Your task to perform on an android device: turn vacation reply on in the gmail app Image 0: 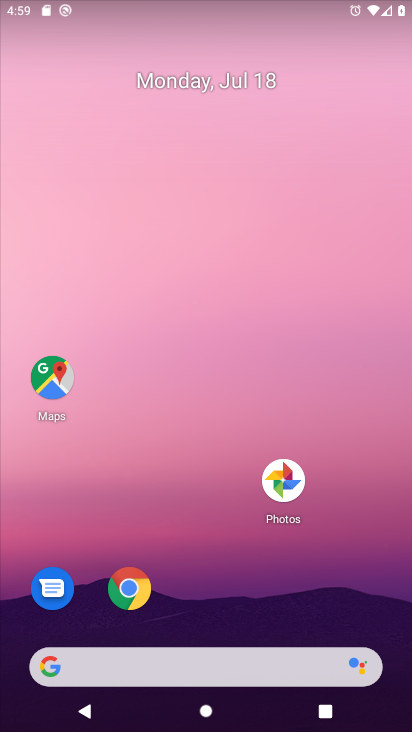
Step 0: drag from (266, 633) to (195, 145)
Your task to perform on an android device: turn vacation reply on in the gmail app Image 1: 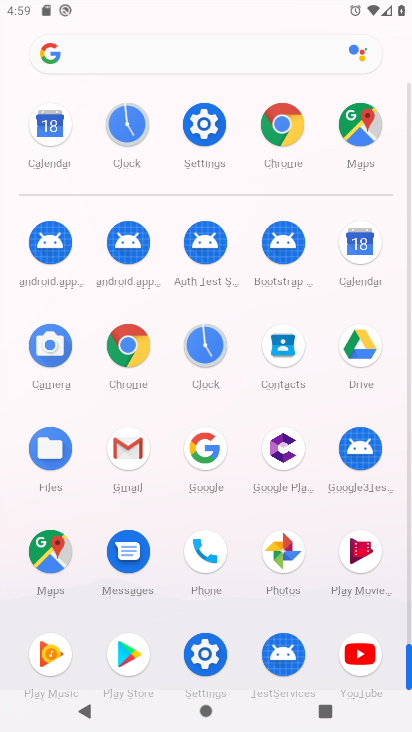
Step 1: click (133, 445)
Your task to perform on an android device: turn vacation reply on in the gmail app Image 2: 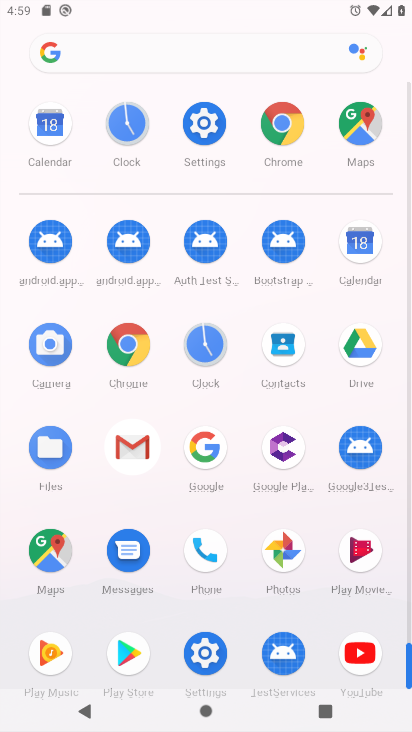
Step 2: click (130, 443)
Your task to perform on an android device: turn vacation reply on in the gmail app Image 3: 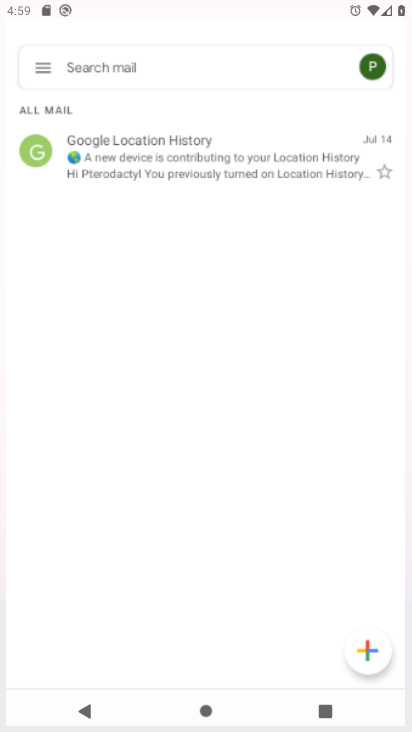
Step 3: click (130, 443)
Your task to perform on an android device: turn vacation reply on in the gmail app Image 4: 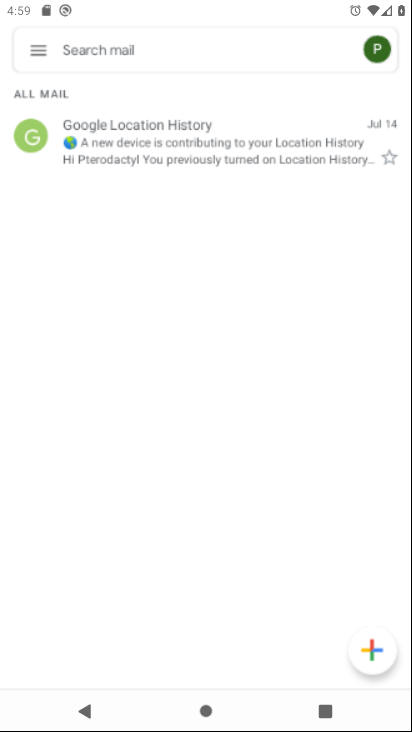
Step 4: click (130, 443)
Your task to perform on an android device: turn vacation reply on in the gmail app Image 5: 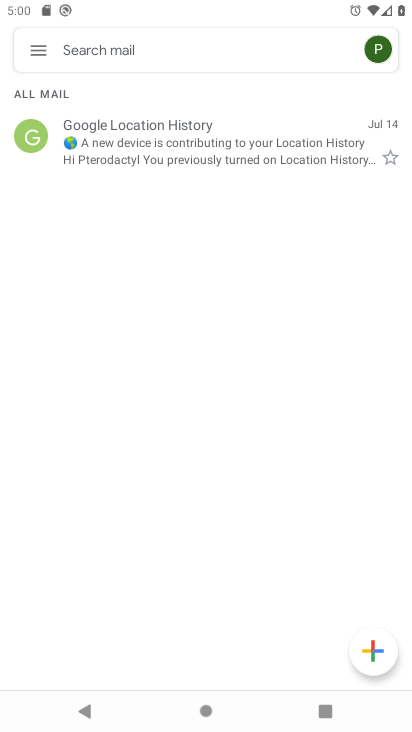
Step 5: drag from (34, 53) to (46, 113)
Your task to perform on an android device: turn vacation reply on in the gmail app Image 6: 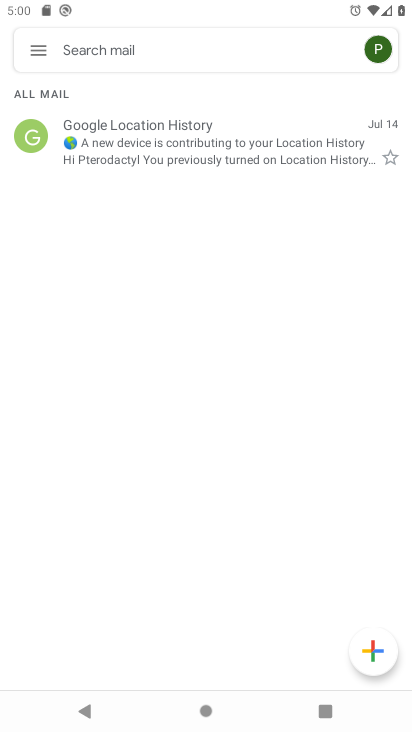
Step 6: click (30, 50)
Your task to perform on an android device: turn vacation reply on in the gmail app Image 7: 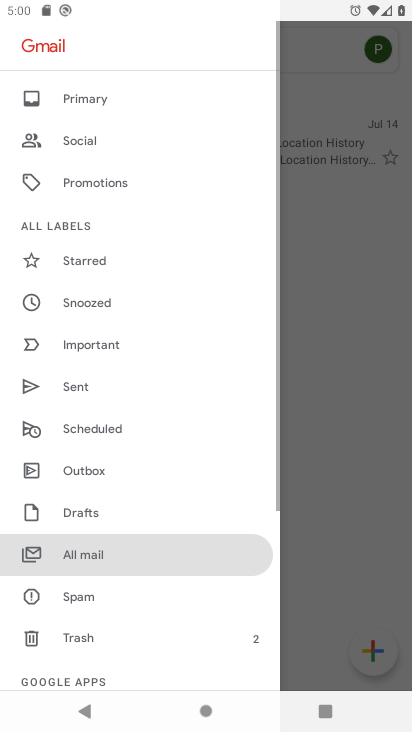
Step 7: click (37, 54)
Your task to perform on an android device: turn vacation reply on in the gmail app Image 8: 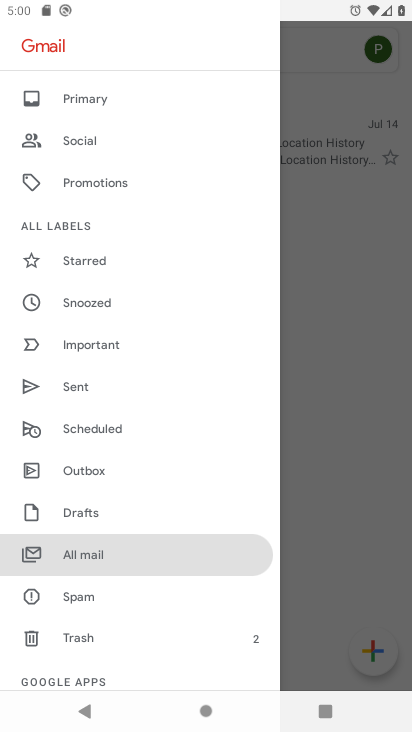
Step 8: drag from (81, 637) to (69, 260)
Your task to perform on an android device: turn vacation reply on in the gmail app Image 9: 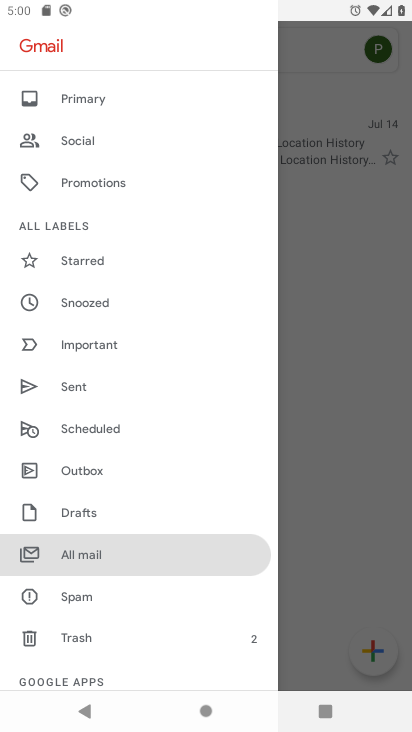
Step 9: drag from (85, 506) to (92, 252)
Your task to perform on an android device: turn vacation reply on in the gmail app Image 10: 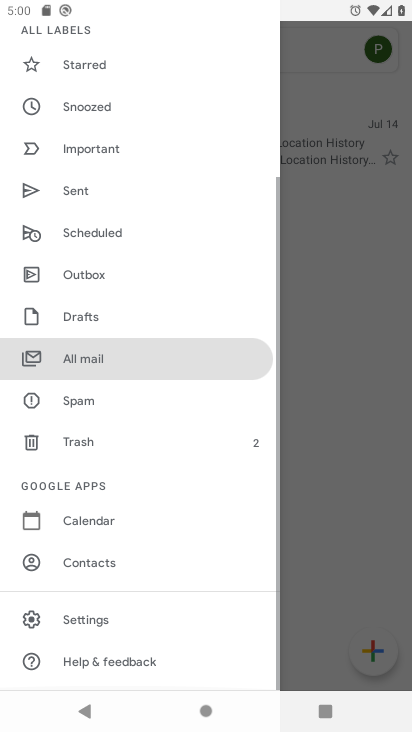
Step 10: drag from (101, 583) to (102, 294)
Your task to perform on an android device: turn vacation reply on in the gmail app Image 11: 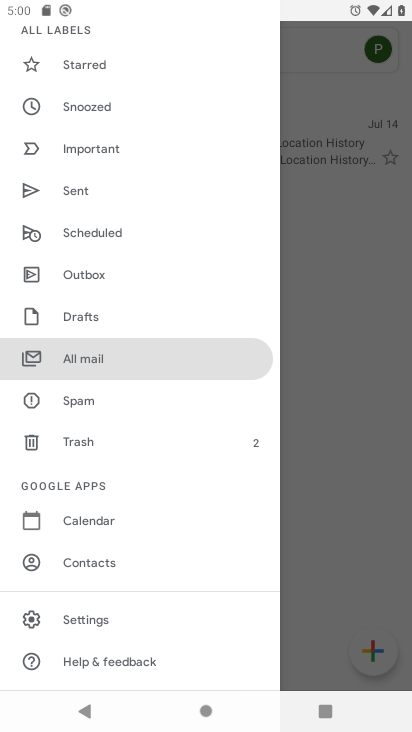
Step 11: click (81, 620)
Your task to perform on an android device: turn vacation reply on in the gmail app Image 12: 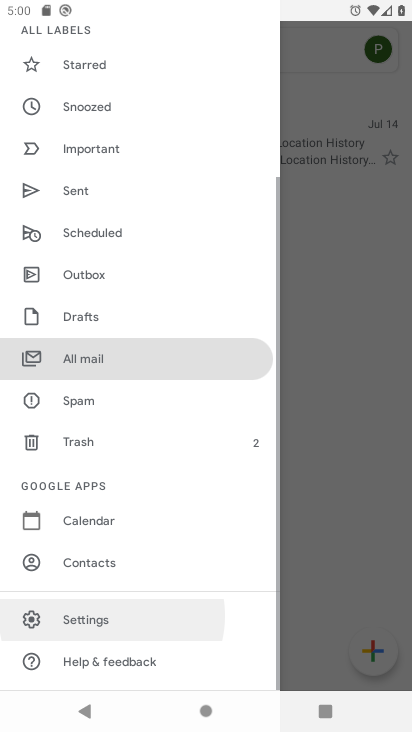
Step 12: click (81, 620)
Your task to perform on an android device: turn vacation reply on in the gmail app Image 13: 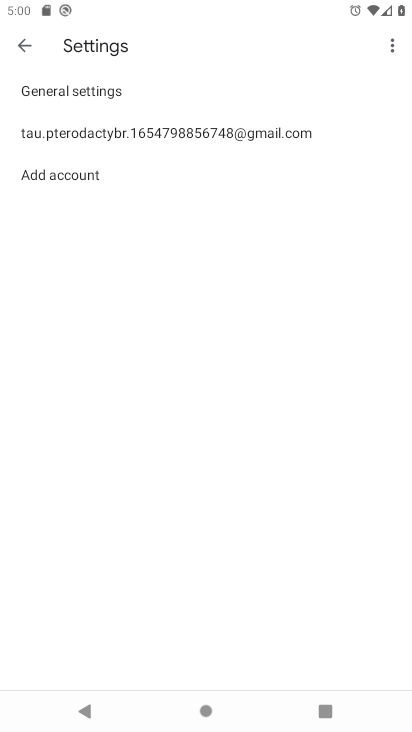
Step 13: click (79, 100)
Your task to perform on an android device: turn vacation reply on in the gmail app Image 14: 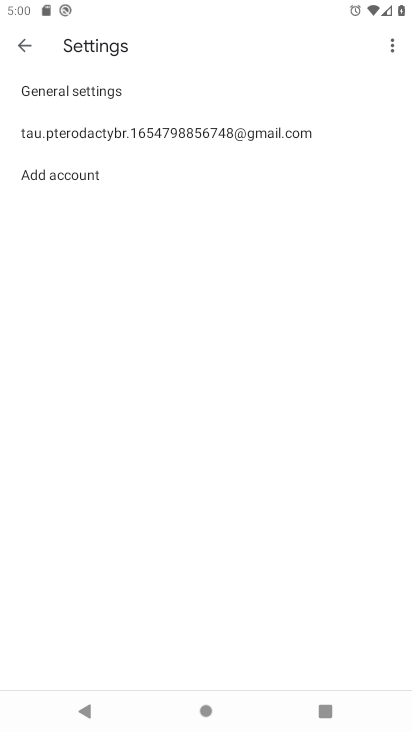
Step 14: click (88, 129)
Your task to perform on an android device: turn vacation reply on in the gmail app Image 15: 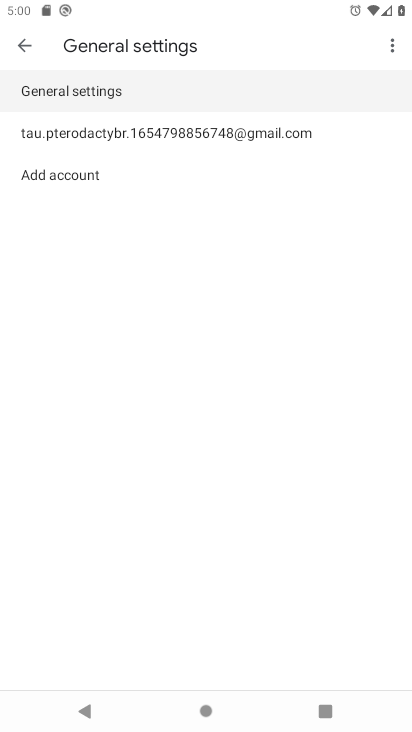
Step 15: click (88, 130)
Your task to perform on an android device: turn vacation reply on in the gmail app Image 16: 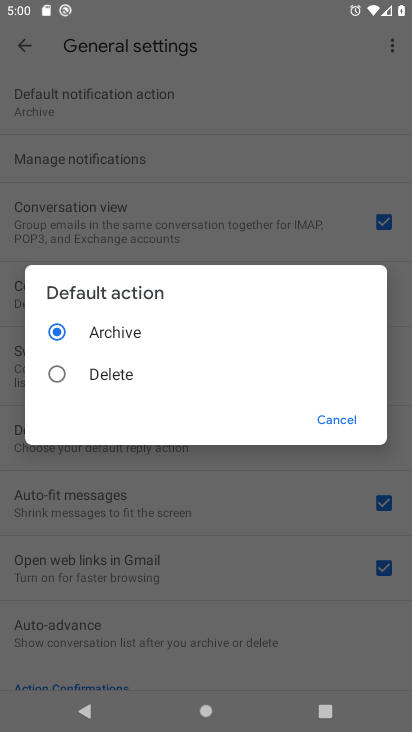
Step 16: click (350, 413)
Your task to perform on an android device: turn vacation reply on in the gmail app Image 17: 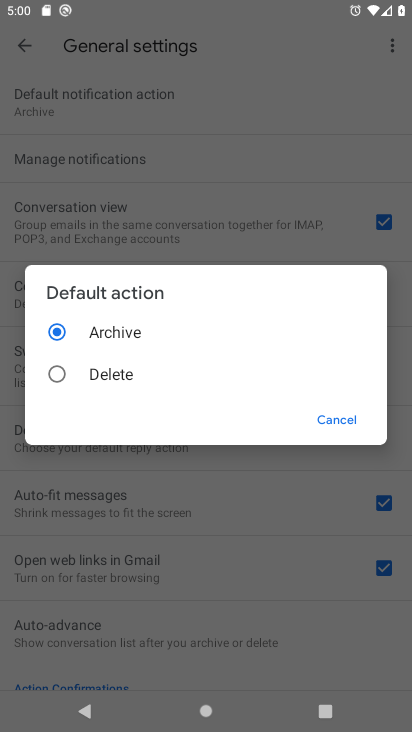
Step 17: click (343, 410)
Your task to perform on an android device: turn vacation reply on in the gmail app Image 18: 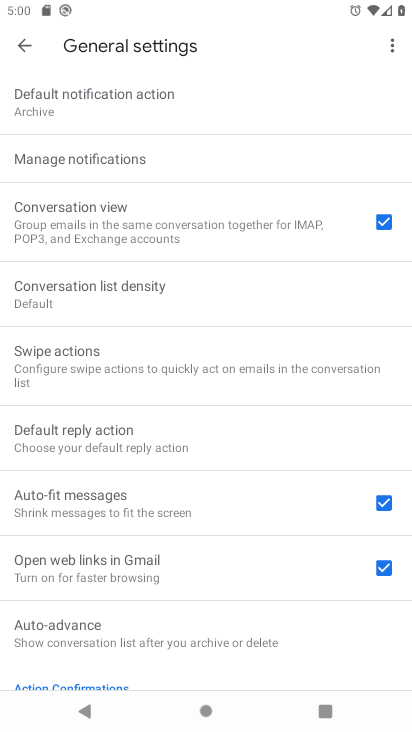
Step 18: drag from (125, 575) to (113, 314)
Your task to perform on an android device: turn vacation reply on in the gmail app Image 19: 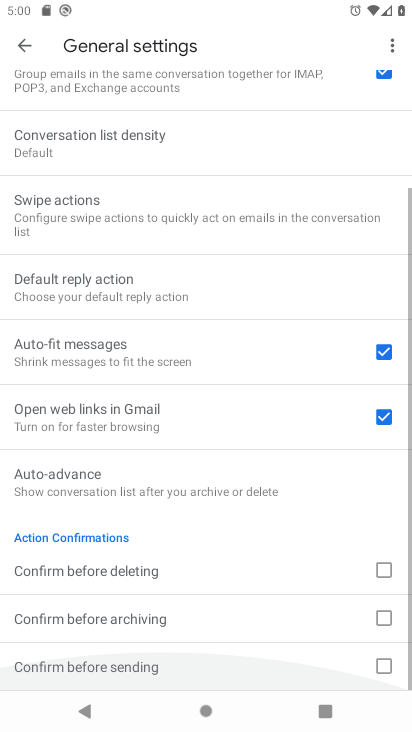
Step 19: drag from (144, 541) to (144, 328)
Your task to perform on an android device: turn vacation reply on in the gmail app Image 20: 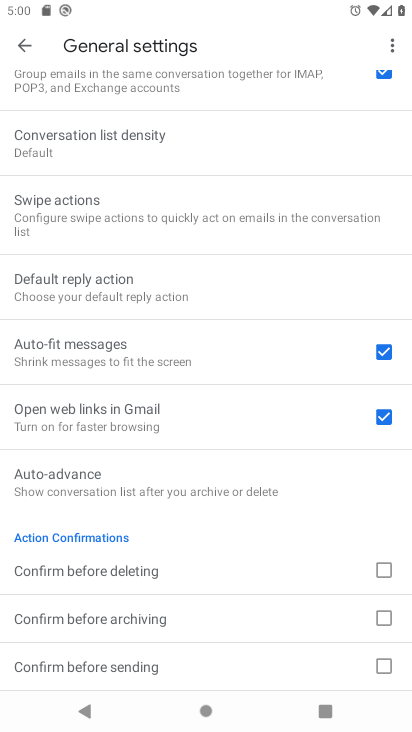
Step 20: click (23, 47)
Your task to perform on an android device: turn vacation reply on in the gmail app Image 21: 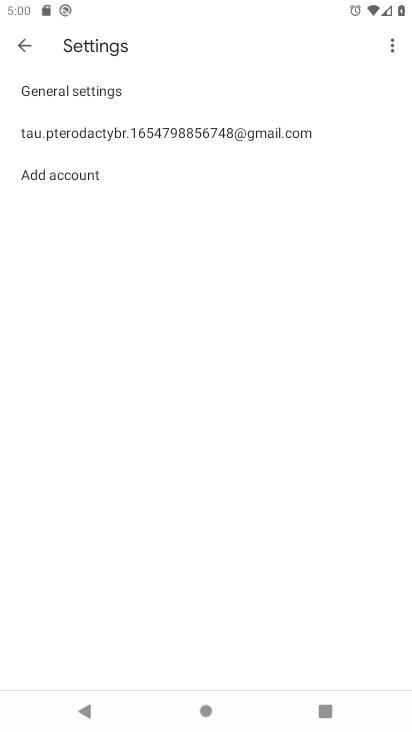
Step 21: click (85, 133)
Your task to perform on an android device: turn vacation reply on in the gmail app Image 22: 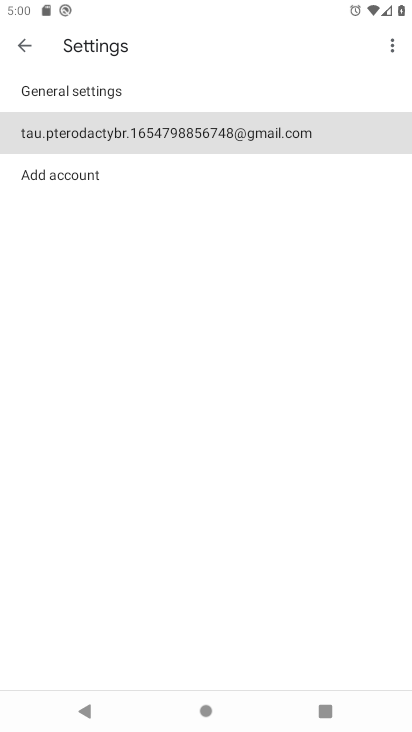
Step 22: click (87, 135)
Your task to perform on an android device: turn vacation reply on in the gmail app Image 23: 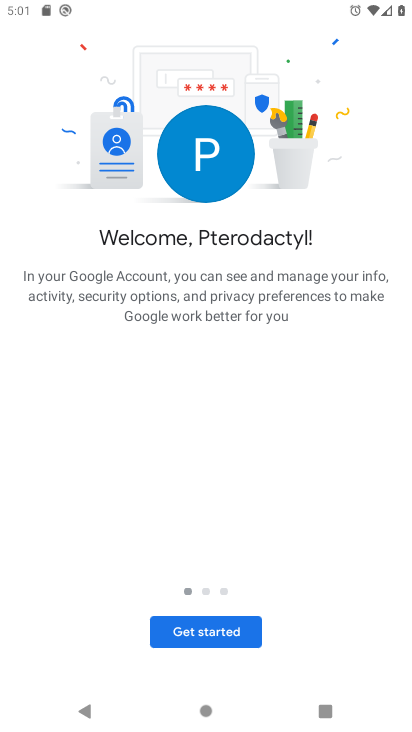
Step 23: press back button
Your task to perform on an android device: turn vacation reply on in the gmail app Image 24: 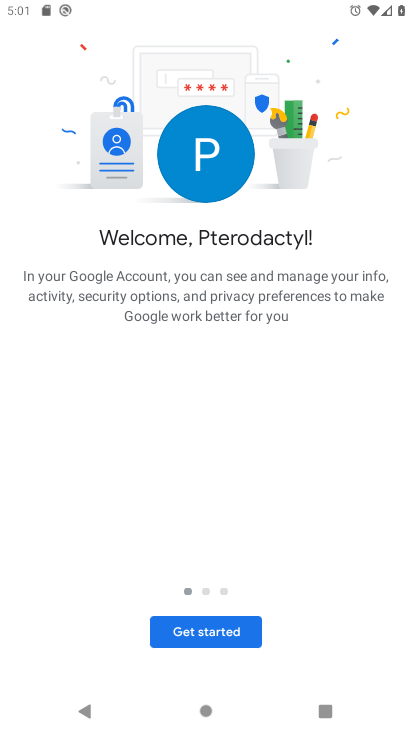
Step 24: press back button
Your task to perform on an android device: turn vacation reply on in the gmail app Image 25: 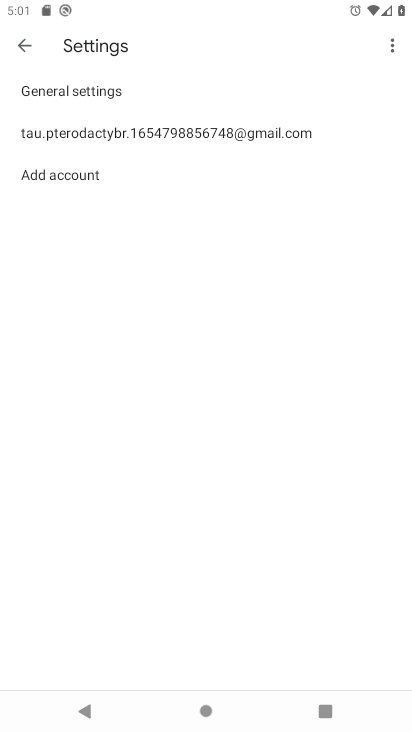
Step 25: click (122, 139)
Your task to perform on an android device: turn vacation reply on in the gmail app Image 26: 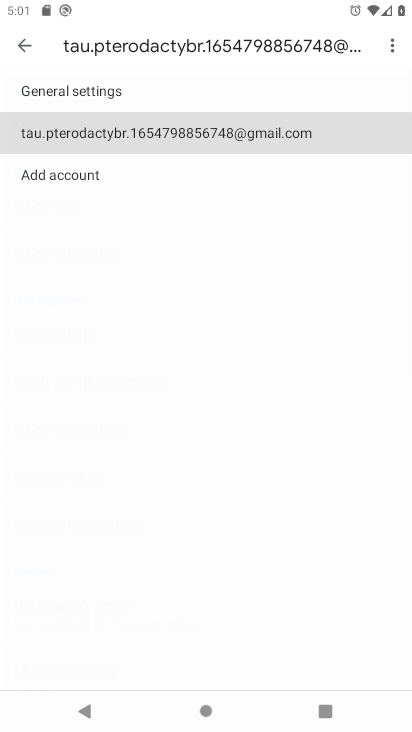
Step 26: click (123, 136)
Your task to perform on an android device: turn vacation reply on in the gmail app Image 27: 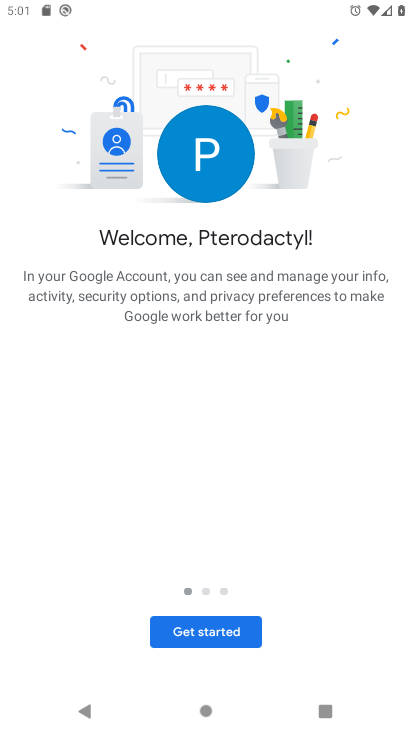
Step 27: press back button
Your task to perform on an android device: turn vacation reply on in the gmail app Image 28: 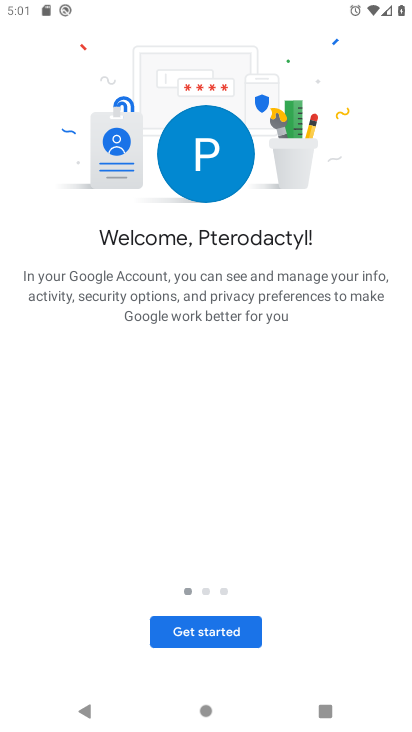
Step 28: press back button
Your task to perform on an android device: turn vacation reply on in the gmail app Image 29: 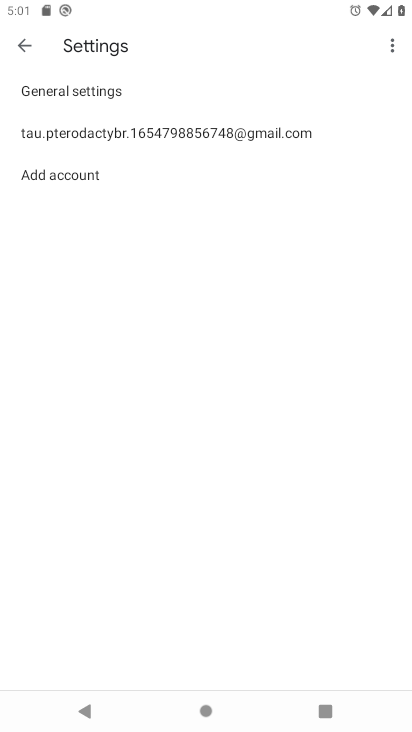
Step 29: click (98, 140)
Your task to perform on an android device: turn vacation reply on in the gmail app Image 30: 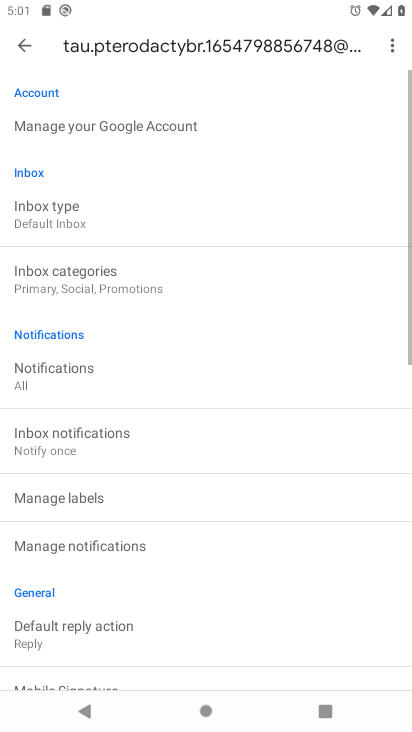
Step 30: click (120, 137)
Your task to perform on an android device: turn vacation reply on in the gmail app Image 31: 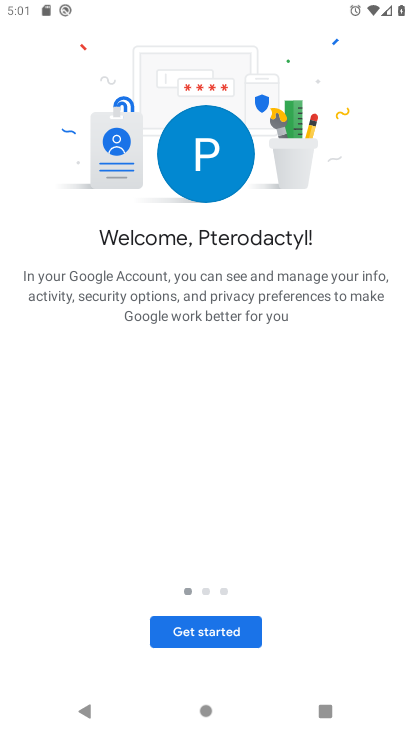
Step 31: press home button
Your task to perform on an android device: turn vacation reply on in the gmail app Image 32: 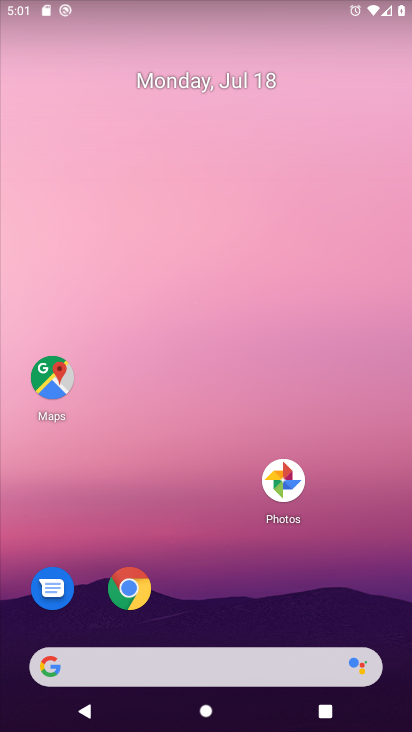
Step 32: drag from (256, 632) to (132, 197)
Your task to perform on an android device: turn vacation reply on in the gmail app Image 33: 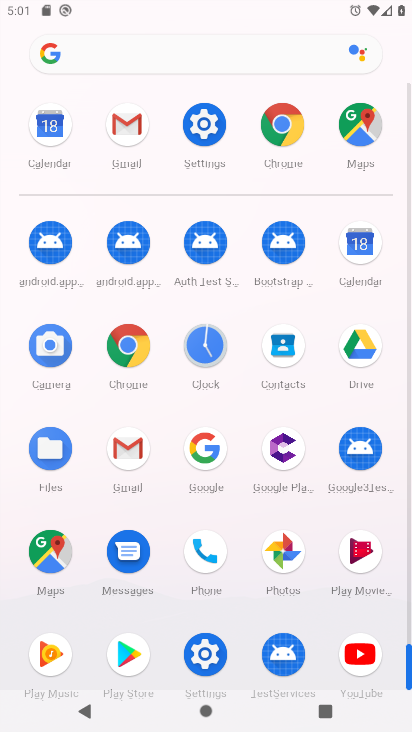
Step 33: click (109, 450)
Your task to perform on an android device: turn vacation reply on in the gmail app Image 34: 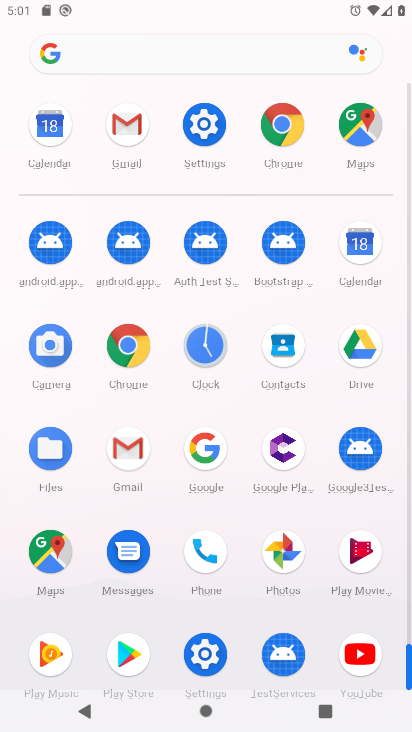
Step 34: click (109, 450)
Your task to perform on an android device: turn vacation reply on in the gmail app Image 35: 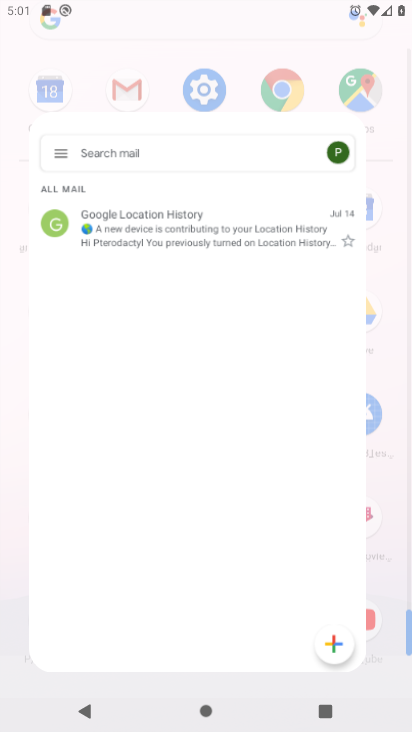
Step 35: click (112, 451)
Your task to perform on an android device: turn vacation reply on in the gmail app Image 36: 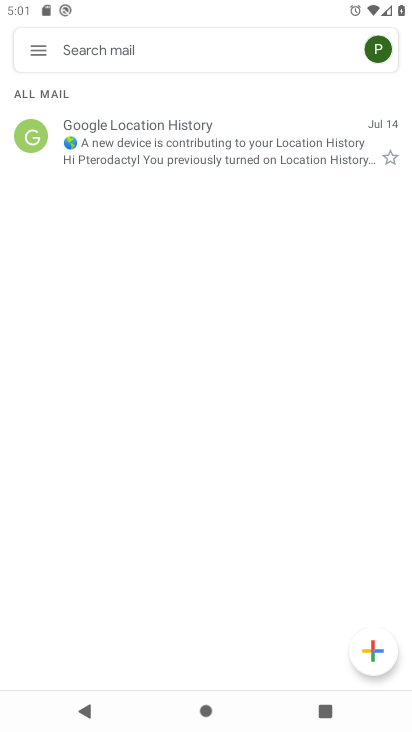
Step 36: click (127, 444)
Your task to perform on an android device: turn vacation reply on in the gmail app Image 37: 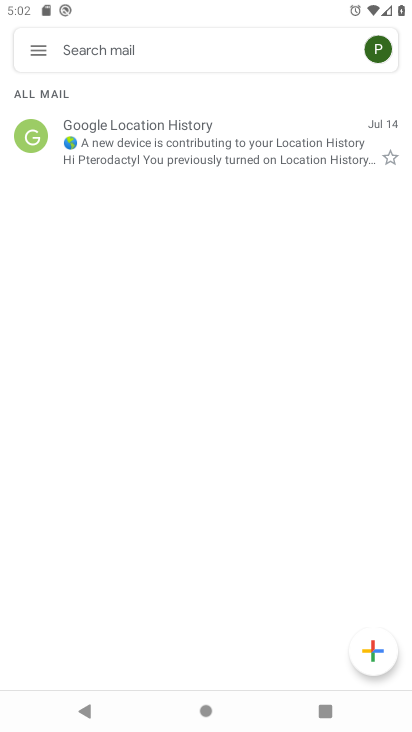
Step 37: click (35, 56)
Your task to perform on an android device: turn vacation reply on in the gmail app Image 38: 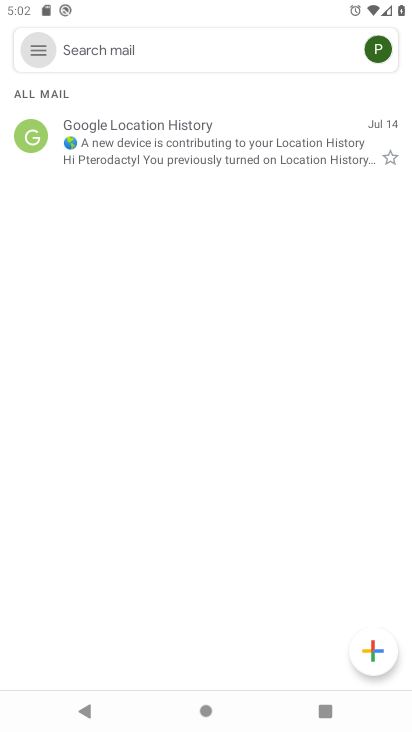
Step 38: click (35, 55)
Your task to perform on an android device: turn vacation reply on in the gmail app Image 39: 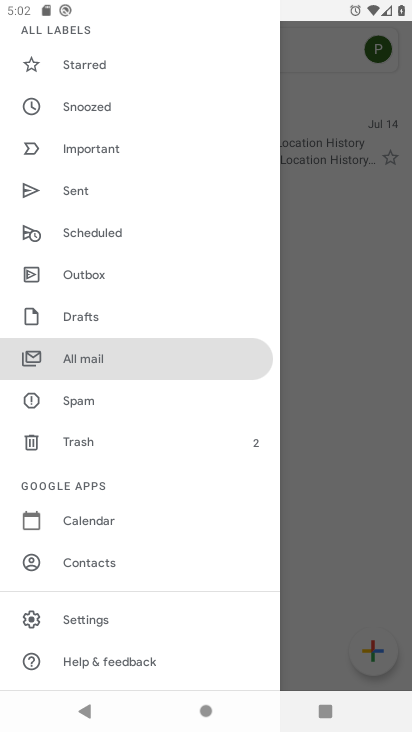
Step 39: click (77, 620)
Your task to perform on an android device: turn vacation reply on in the gmail app Image 40: 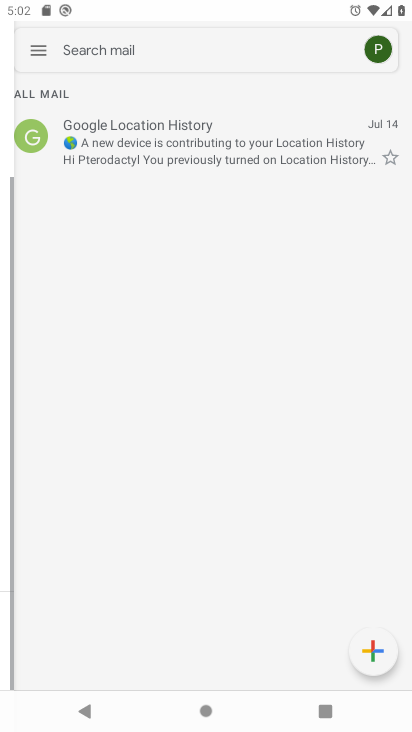
Step 40: click (77, 619)
Your task to perform on an android device: turn vacation reply on in the gmail app Image 41: 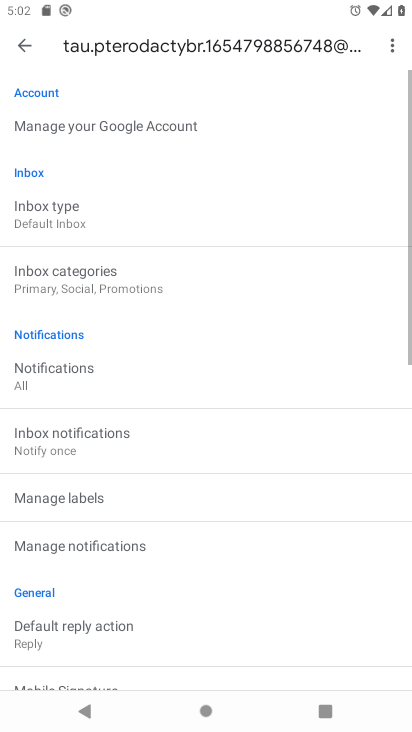
Step 41: drag from (80, 315) to (119, 14)
Your task to perform on an android device: turn vacation reply on in the gmail app Image 42: 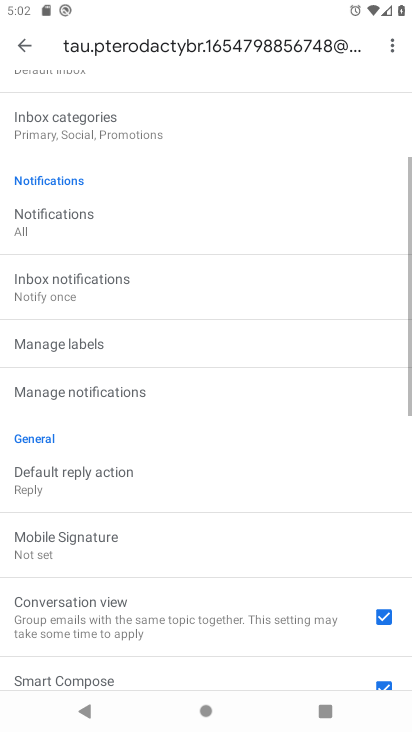
Step 42: drag from (187, 437) to (180, 110)
Your task to perform on an android device: turn vacation reply on in the gmail app Image 43: 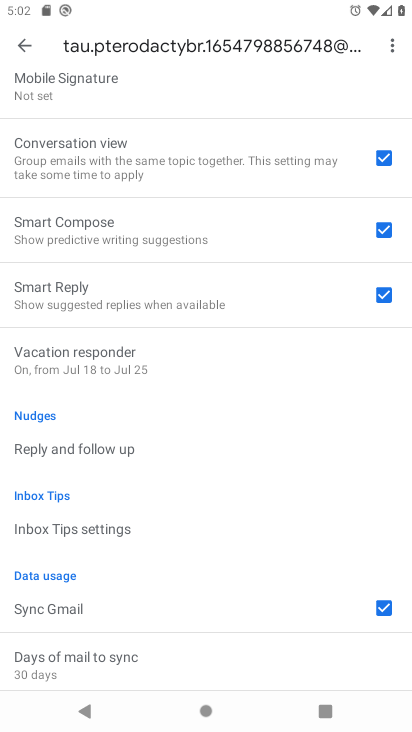
Step 43: click (82, 353)
Your task to perform on an android device: turn vacation reply on in the gmail app Image 44: 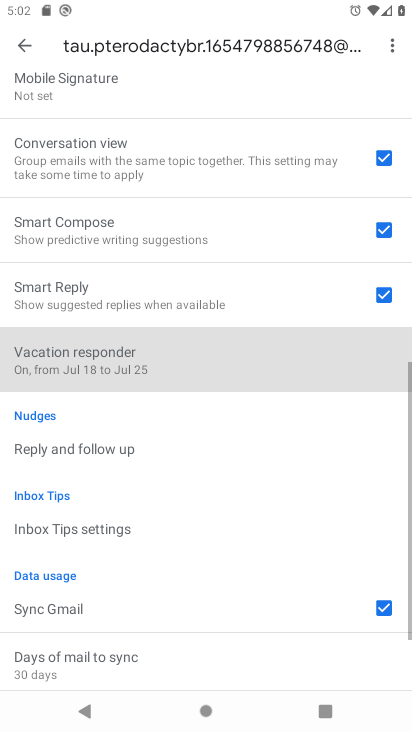
Step 44: click (82, 355)
Your task to perform on an android device: turn vacation reply on in the gmail app Image 45: 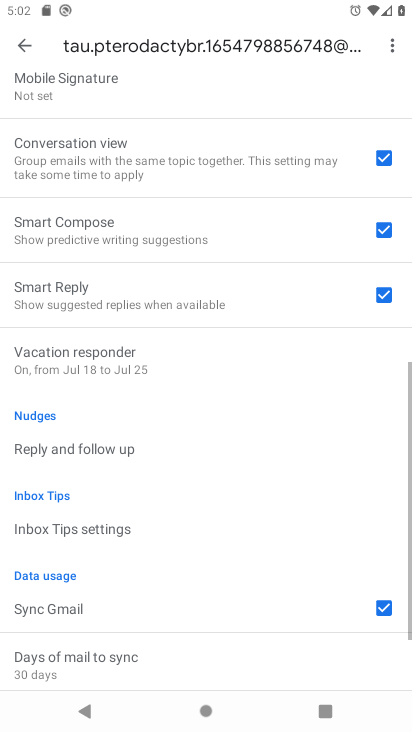
Step 45: click (76, 365)
Your task to perform on an android device: turn vacation reply on in the gmail app Image 46: 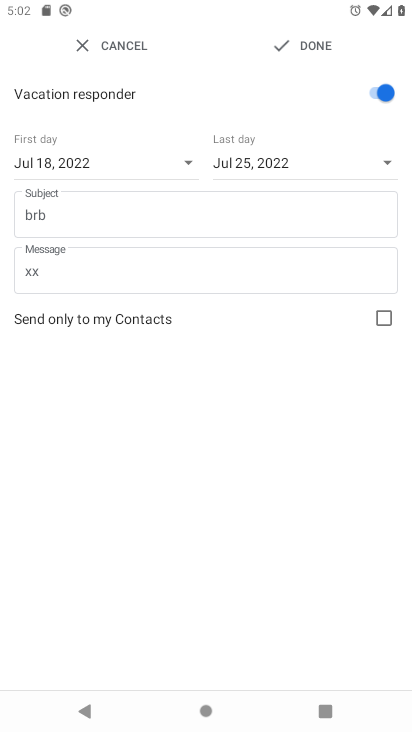
Step 46: task complete